Your task to perform on an android device: What's the weather going to be this weekend? Image 0: 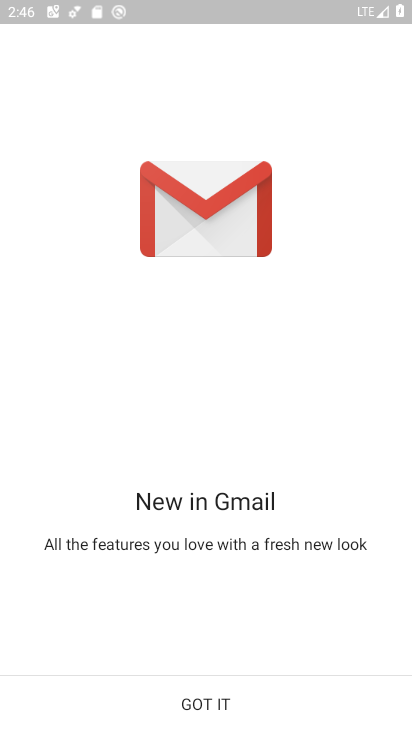
Step 0: press home button
Your task to perform on an android device: What's the weather going to be this weekend? Image 1: 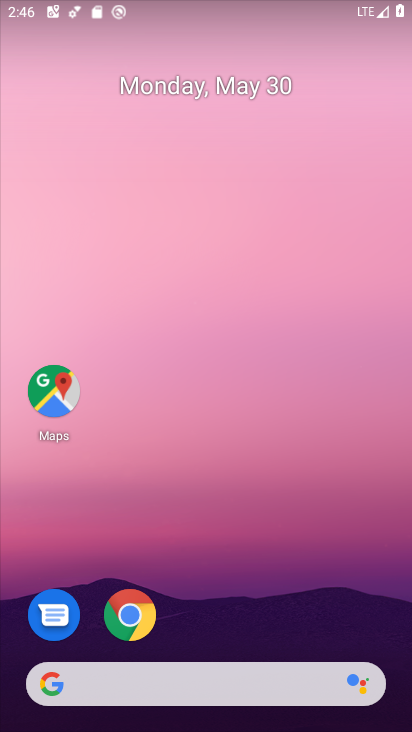
Step 1: click (45, 386)
Your task to perform on an android device: What's the weather going to be this weekend? Image 2: 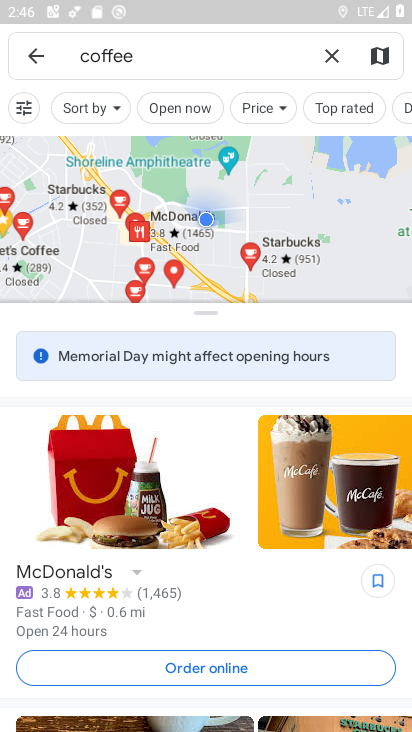
Step 2: press home button
Your task to perform on an android device: What's the weather going to be this weekend? Image 3: 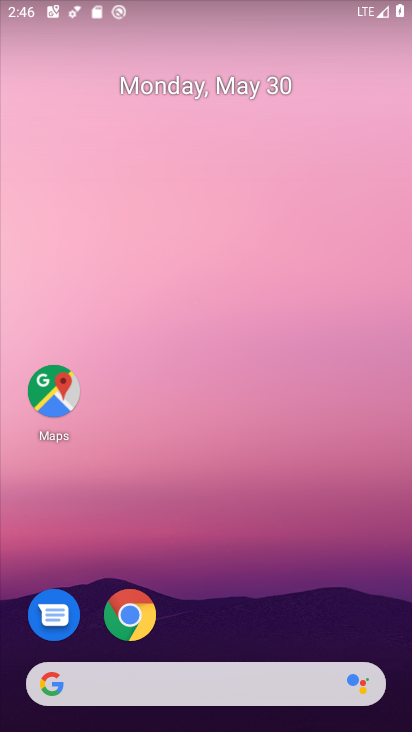
Step 3: click (184, 677)
Your task to perform on an android device: What's the weather going to be this weekend? Image 4: 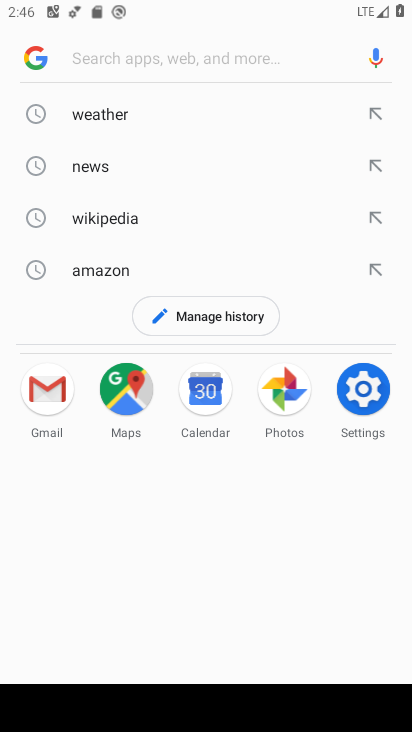
Step 4: click (108, 121)
Your task to perform on an android device: What's the weather going to be this weekend? Image 5: 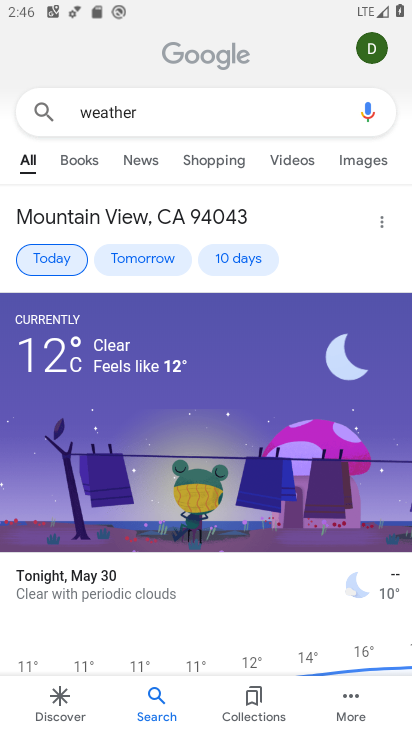
Step 5: click (52, 253)
Your task to perform on an android device: What's the weather going to be this weekend? Image 6: 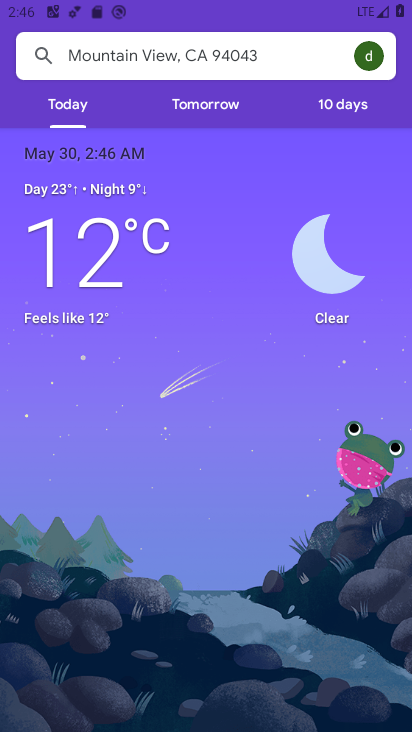
Step 6: click (211, 108)
Your task to perform on an android device: What's the weather going to be this weekend? Image 7: 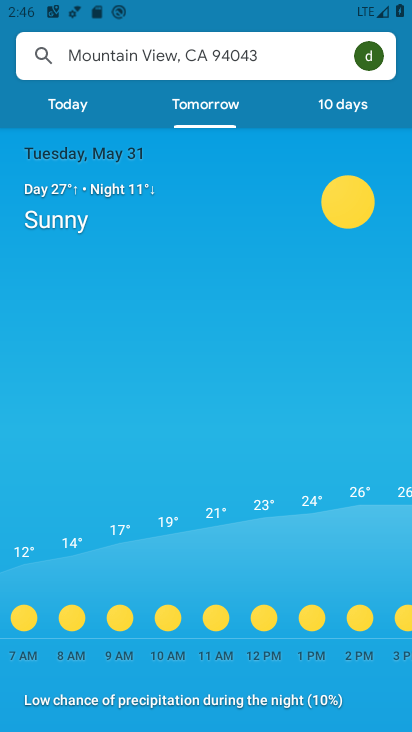
Step 7: click (346, 108)
Your task to perform on an android device: What's the weather going to be this weekend? Image 8: 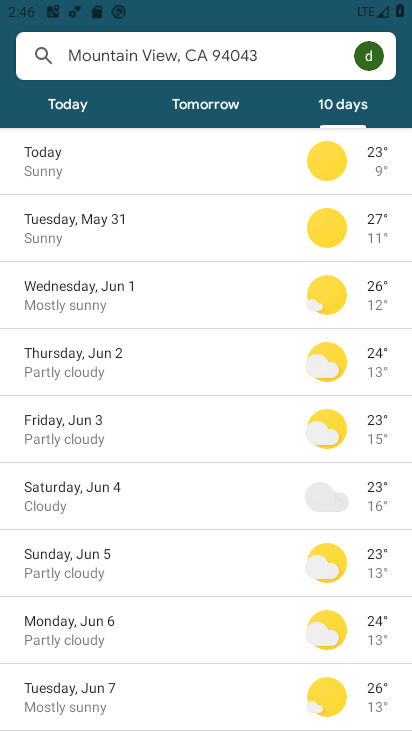
Step 8: click (113, 493)
Your task to perform on an android device: What's the weather going to be this weekend? Image 9: 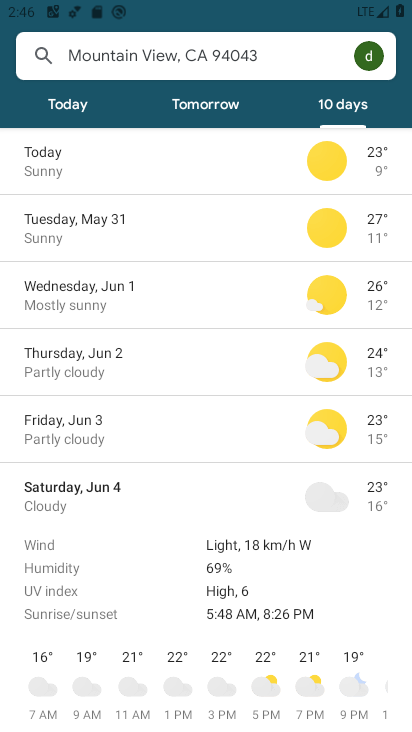
Step 9: task complete